Your task to perform on an android device: show emergency info Image 0: 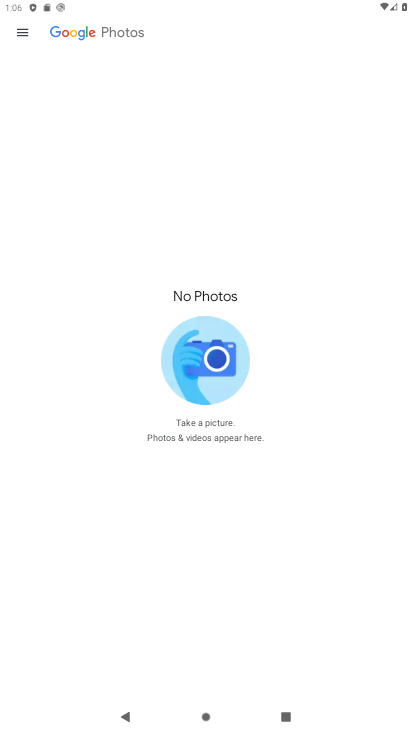
Step 0: press home button
Your task to perform on an android device: show emergency info Image 1: 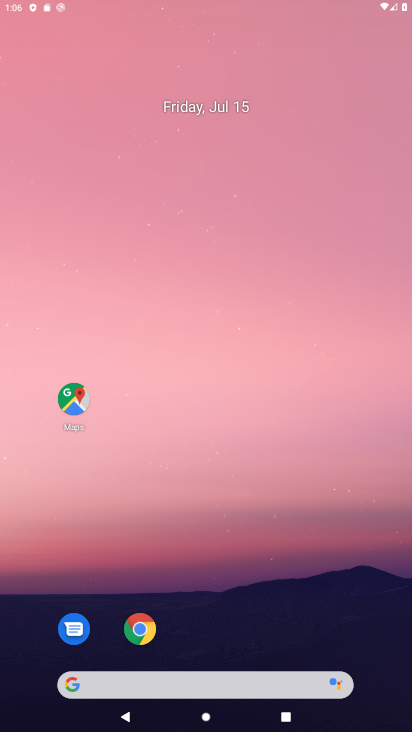
Step 1: drag from (198, 713) to (238, 266)
Your task to perform on an android device: show emergency info Image 2: 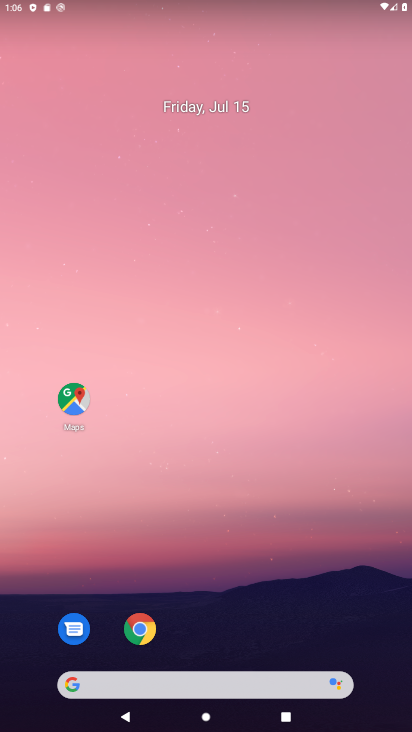
Step 2: drag from (196, 713) to (221, 206)
Your task to perform on an android device: show emergency info Image 3: 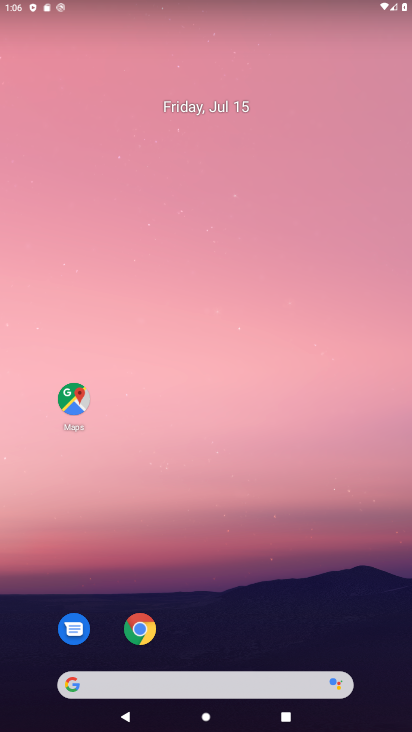
Step 3: drag from (192, 702) to (288, 304)
Your task to perform on an android device: show emergency info Image 4: 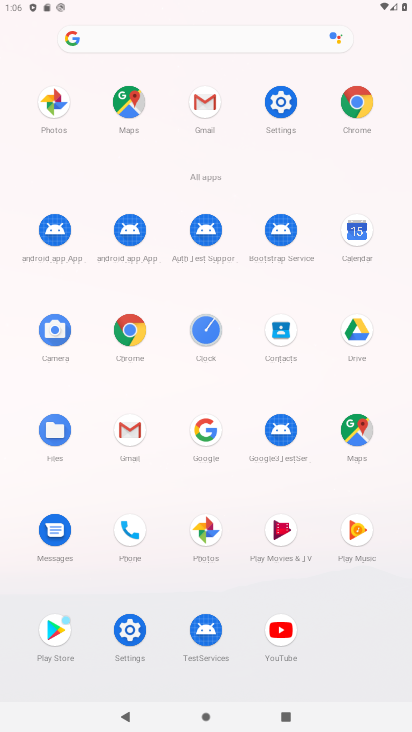
Step 4: click (282, 108)
Your task to perform on an android device: show emergency info Image 5: 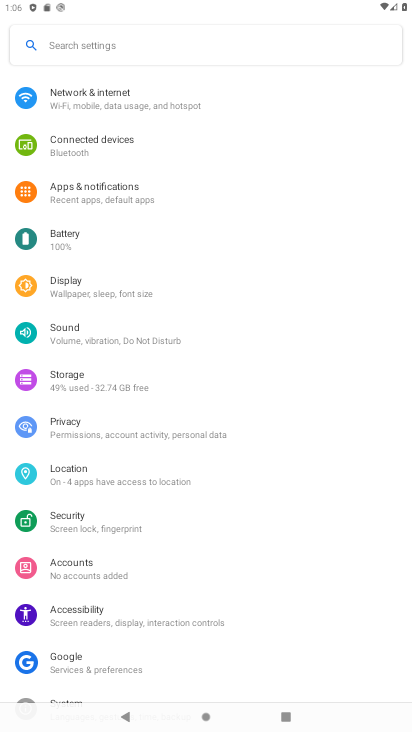
Step 5: drag from (120, 682) to (257, 94)
Your task to perform on an android device: show emergency info Image 6: 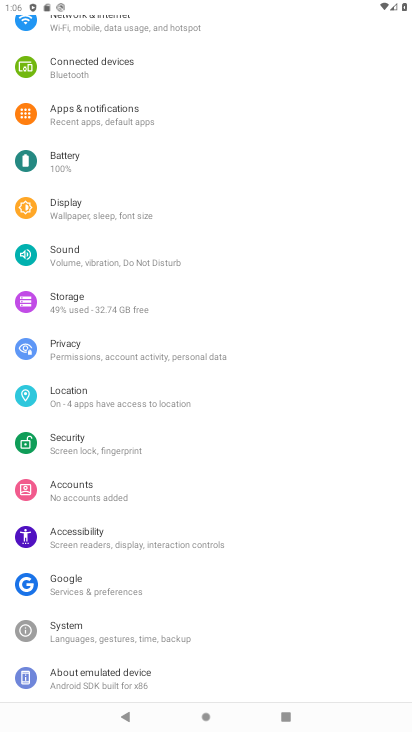
Step 6: click (73, 679)
Your task to perform on an android device: show emergency info Image 7: 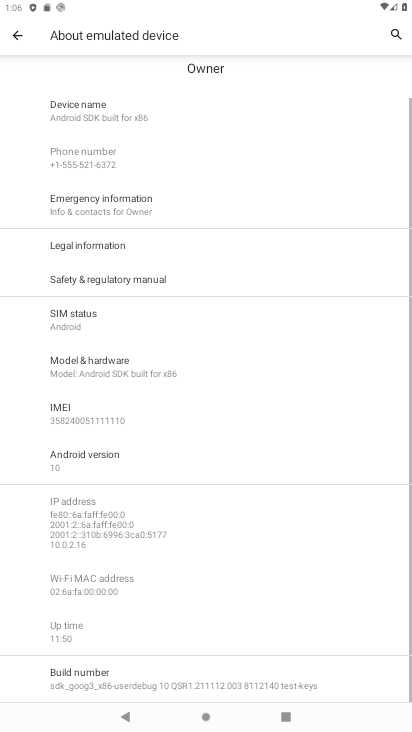
Step 7: click (126, 211)
Your task to perform on an android device: show emergency info Image 8: 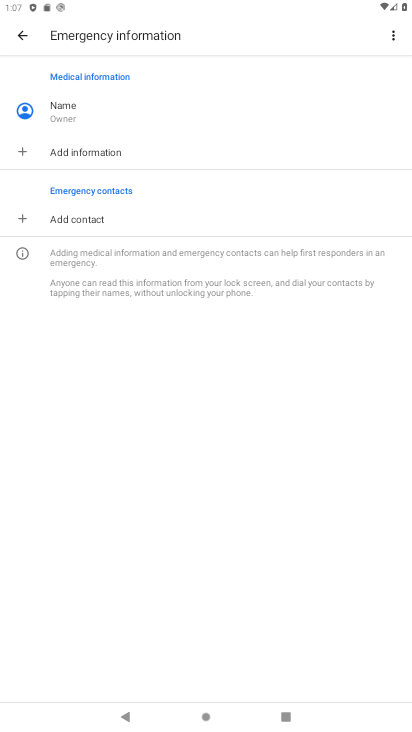
Step 8: task complete